Your task to perform on an android device: Show the shopping cart on newegg.com. Add "apple airpods" to the cart on newegg.com, then select checkout. Image 0: 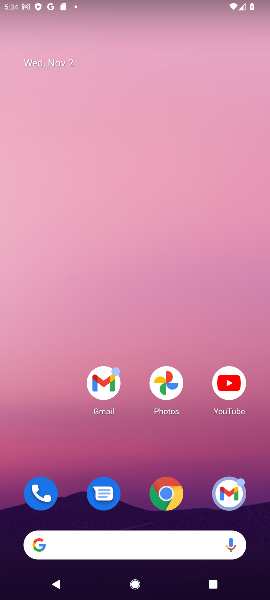
Step 0: drag from (83, 541) to (142, 173)
Your task to perform on an android device: Show the shopping cart on newegg.com. Add "apple airpods" to the cart on newegg.com, then select checkout. Image 1: 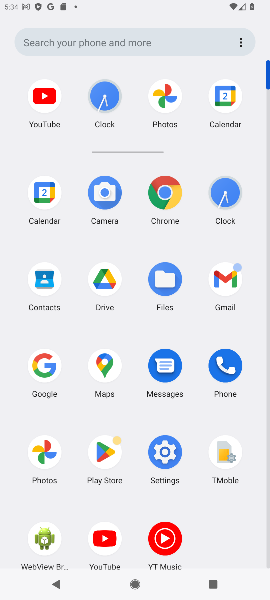
Step 1: click (40, 362)
Your task to perform on an android device: Show the shopping cart on newegg.com. Add "apple airpods" to the cart on newegg.com, then select checkout. Image 2: 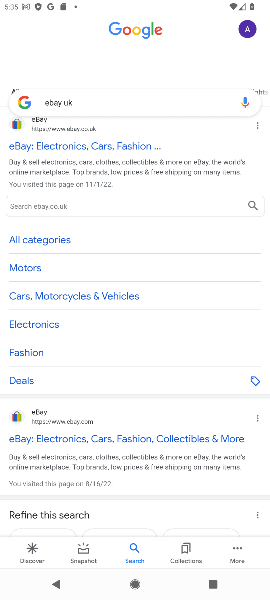
Step 2: click (22, 146)
Your task to perform on an android device: Show the shopping cart on newegg.com. Add "apple airpods" to the cart on newegg.com, then select checkout. Image 3: 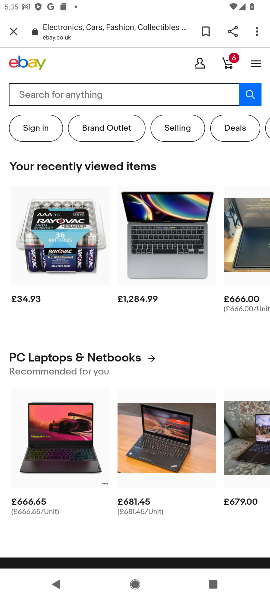
Step 3: click (119, 88)
Your task to perform on an android device: Show the shopping cart on newegg.com. Add "apple airpods" to the cart on newegg.com, then select checkout. Image 4: 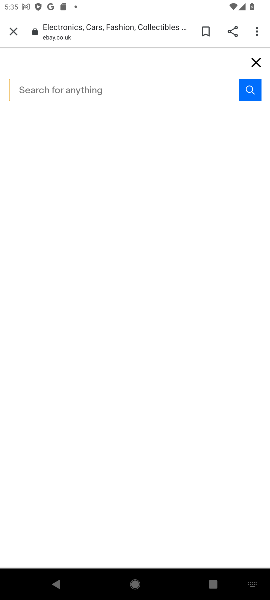
Step 4: type "airpods "
Your task to perform on an android device: Show the shopping cart on newegg.com. Add "apple airpods" to the cart on newegg.com, then select checkout. Image 5: 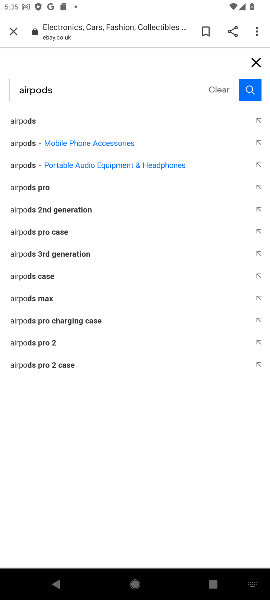
Step 5: click (20, 122)
Your task to perform on an android device: Show the shopping cart on newegg.com. Add "apple airpods" to the cart on newegg.com, then select checkout. Image 6: 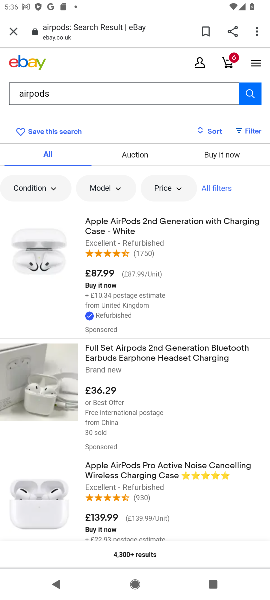
Step 6: click (91, 255)
Your task to perform on an android device: Show the shopping cart on newegg.com. Add "apple airpods" to the cart on newegg.com, then select checkout. Image 7: 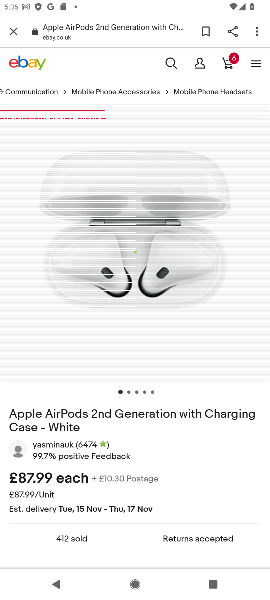
Step 7: drag from (167, 510) to (224, 148)
Your task to perform on an android device: Show the shopping cart on newegg.com. Add "apple airpods" to the cart on newegg.com, then select checkout. Image 8: 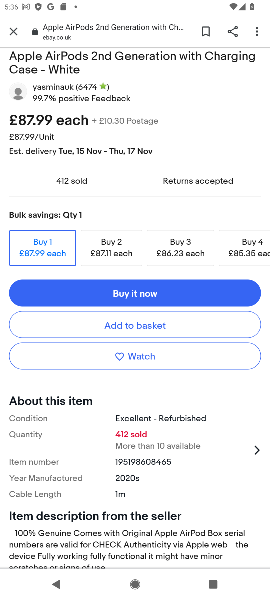
Step 8: click (133, 323)
Your task to perform on an android device: Show the shopping cart on newegg.com. Add "apple airpods" to the cart on newegg.com, then select checkout. Image 9: 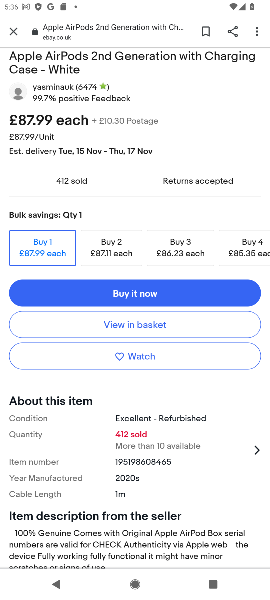
Step 9: task complete